Your task to perform on an android device: uninstall "ZOOM Cloud Meetings" Image 0: 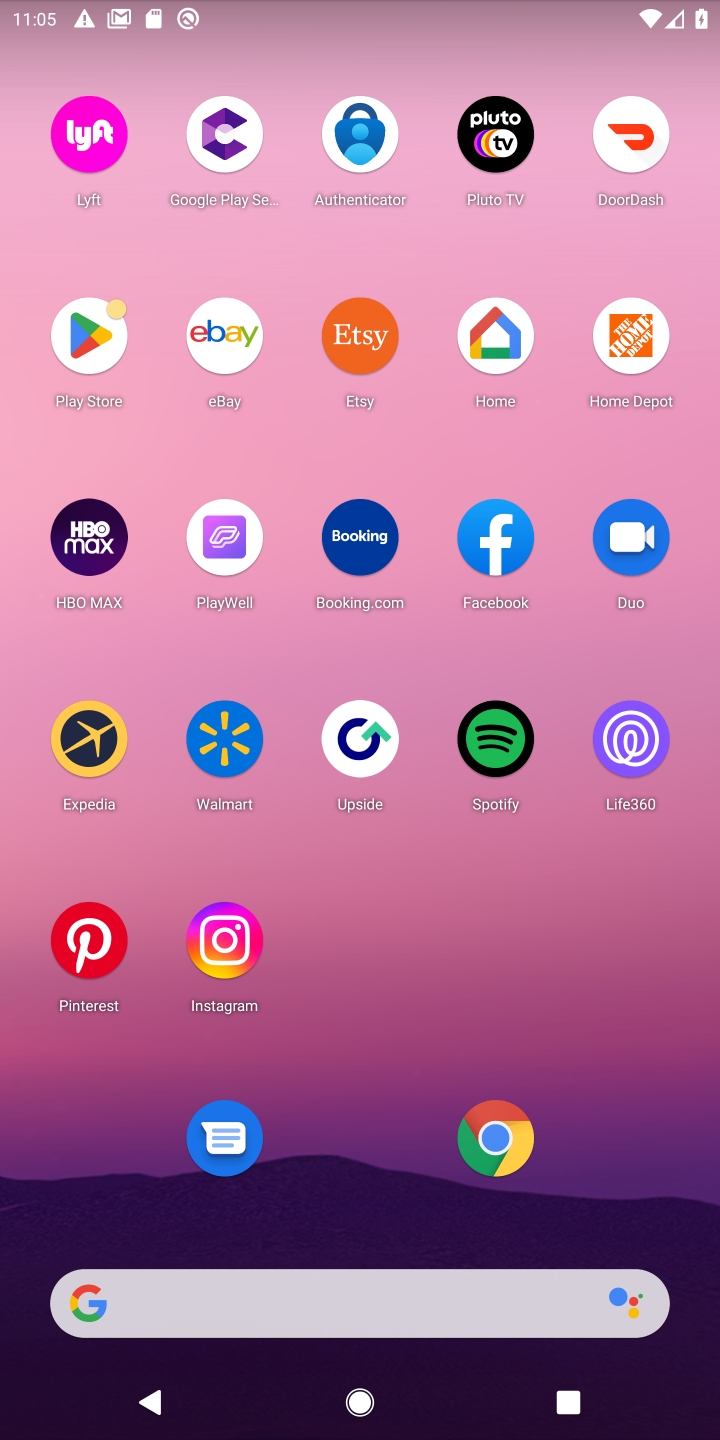
Step 0: click (96, 350)
Your task to perform on an android device: uninstall "ZOOM Cloud Meetings" Image 1: 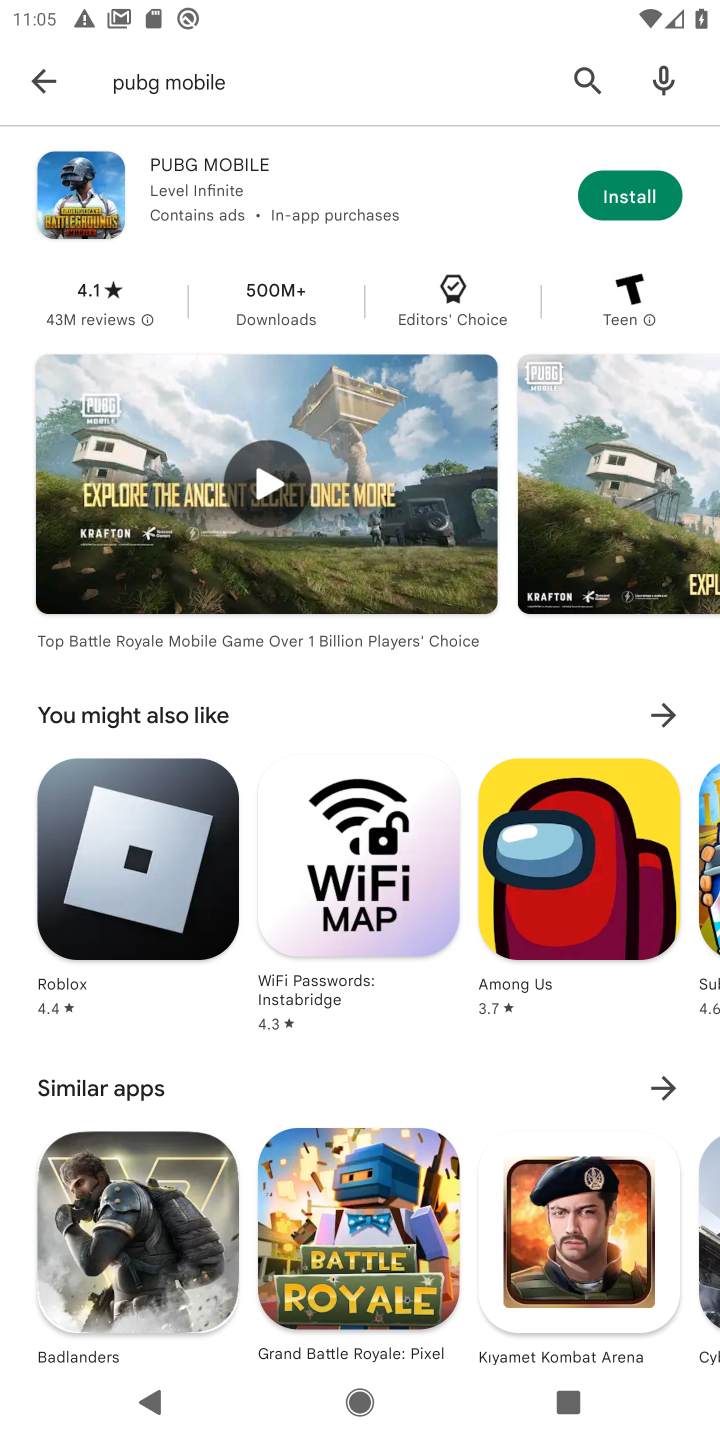
Step 1: click (580, 76)
Your task to perform on an android device: uninstall "ZOOM Cloud Meetings" Image 2: 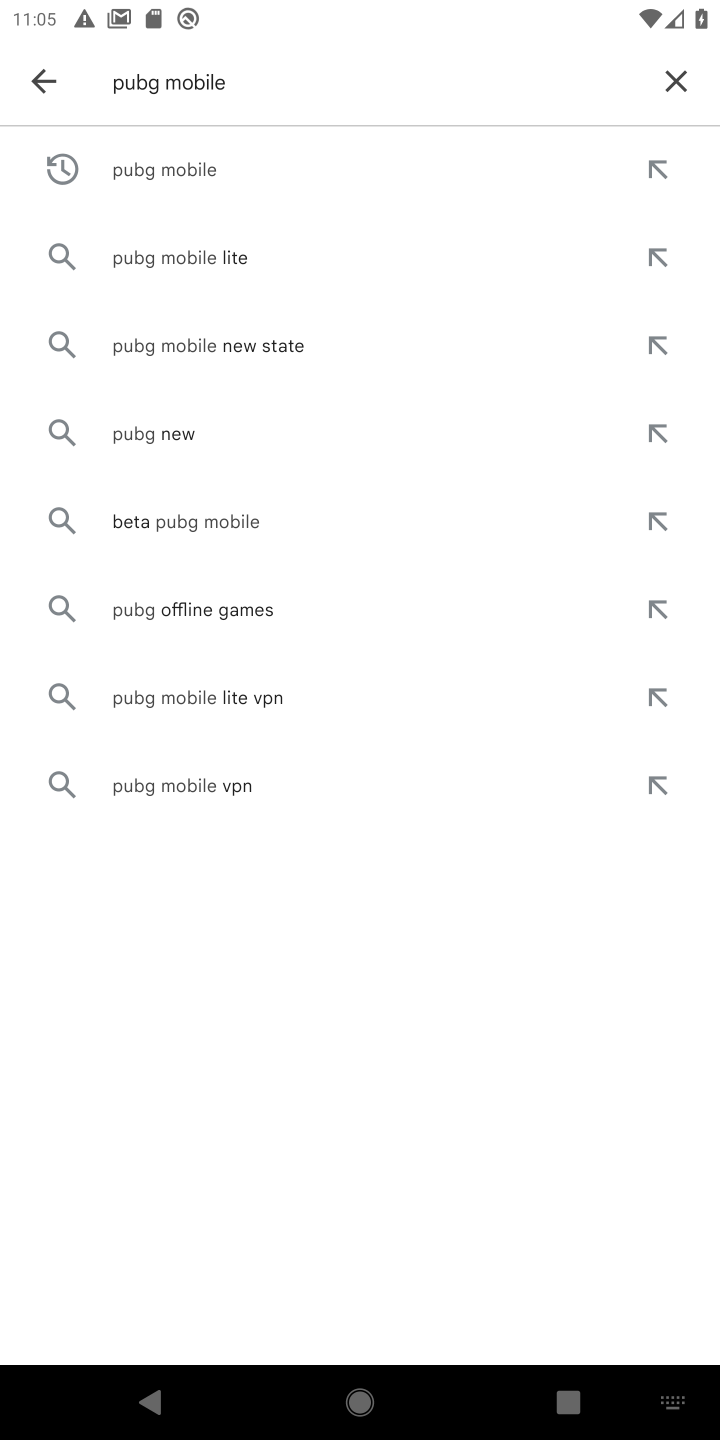
Step 2: click (676, 70)
Your task to perform on an android device: uninstall "ZOOM Cloud Meetings" Image 3: 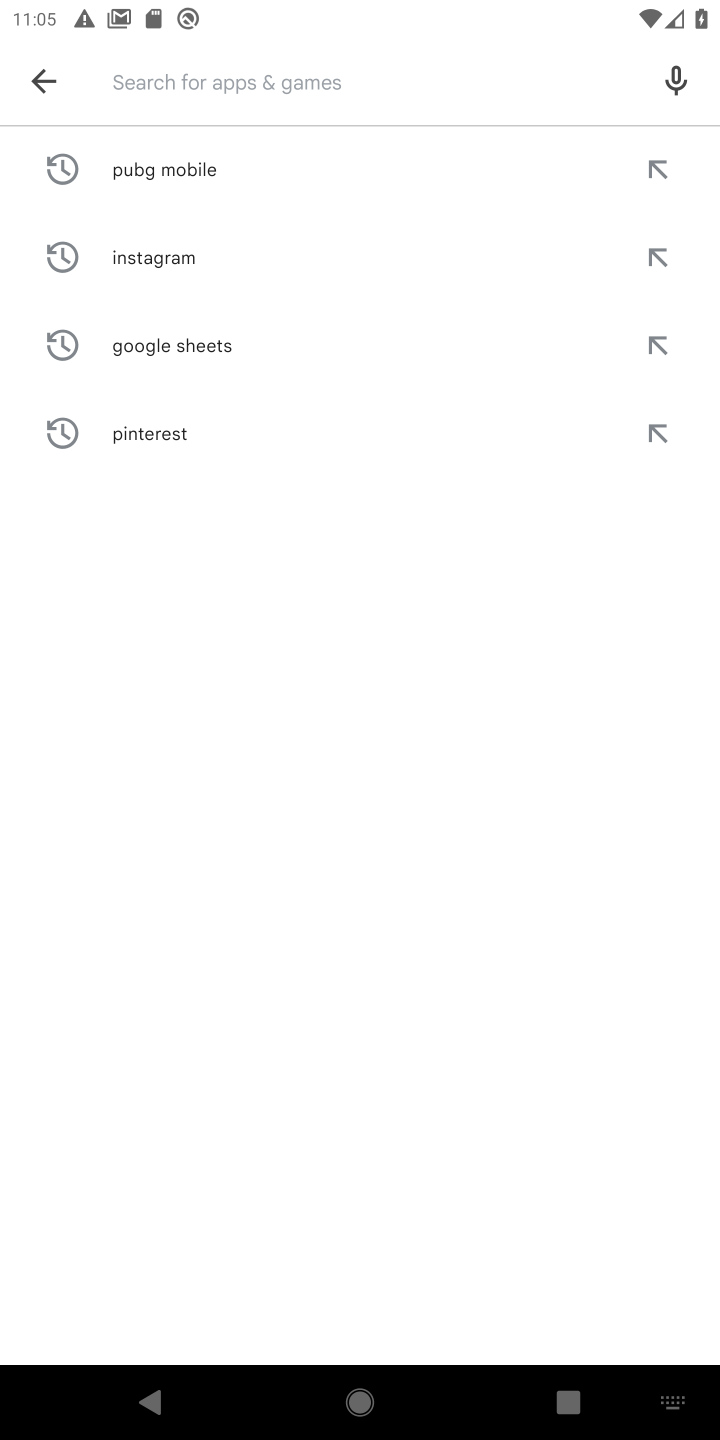
Step 3: type "zoom"
Your task to perform on an android device: uninstall "ZOOM Cloud Meetings" Image 4: 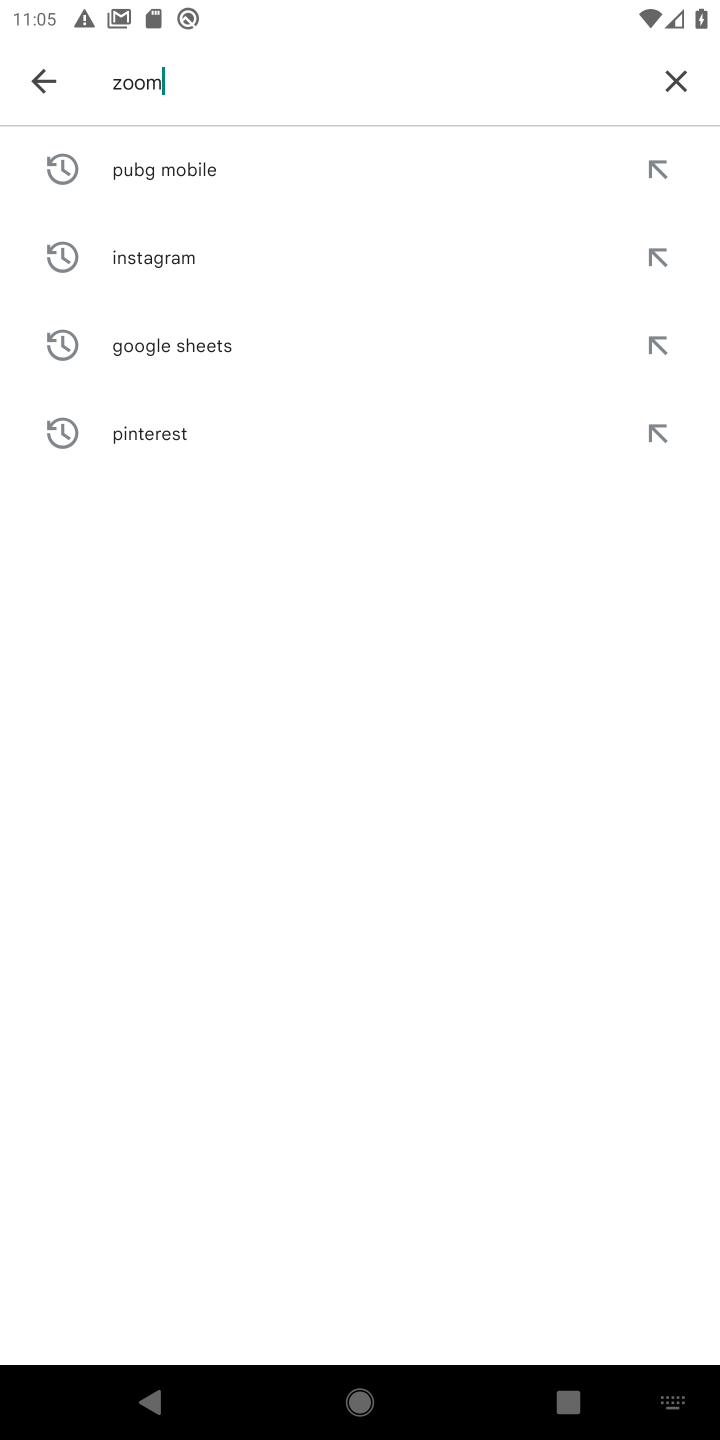
Step 4: type ""
Your task to perform on an android device: uninstall "ZOOM Cloud Meetings" Image 5: 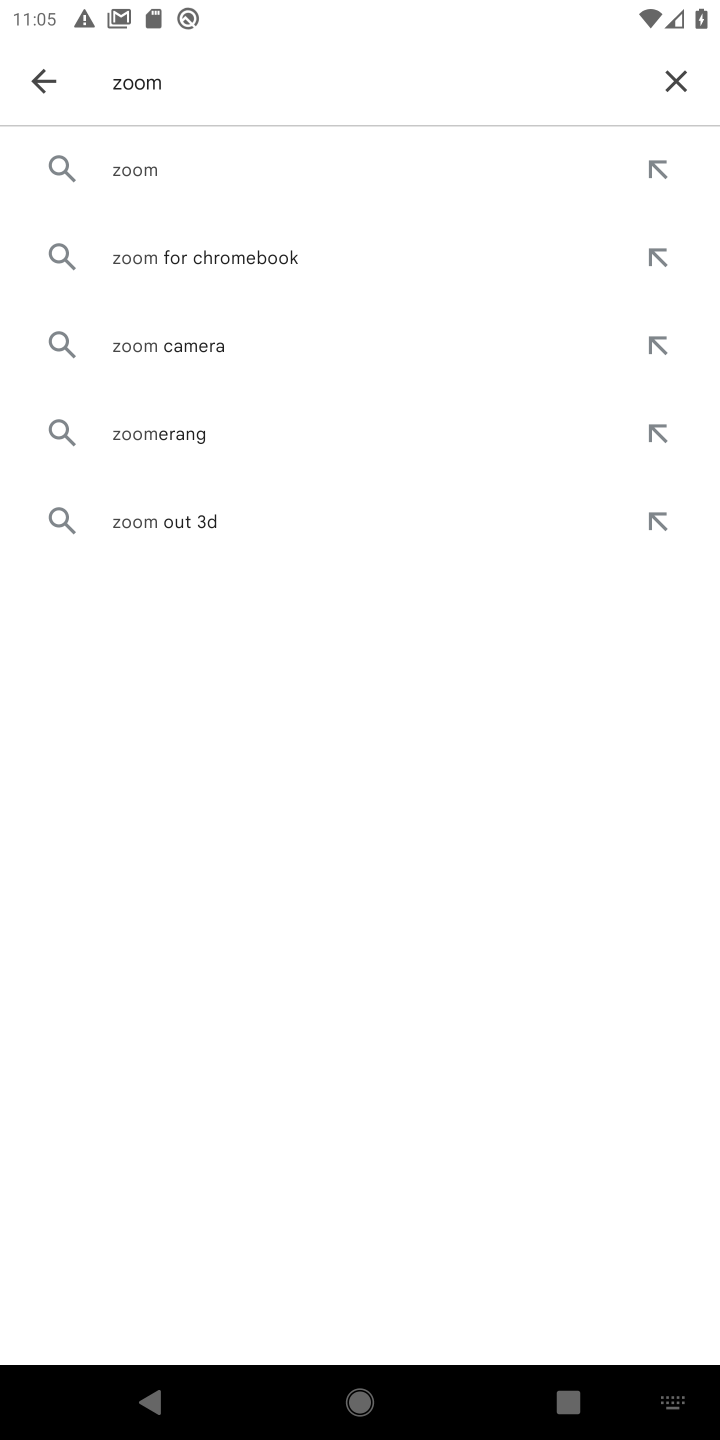
Step 5: click (113, 164)
Your task to perform on an android device: uninstall "ZOOM Cloud Meetings" Image 6: 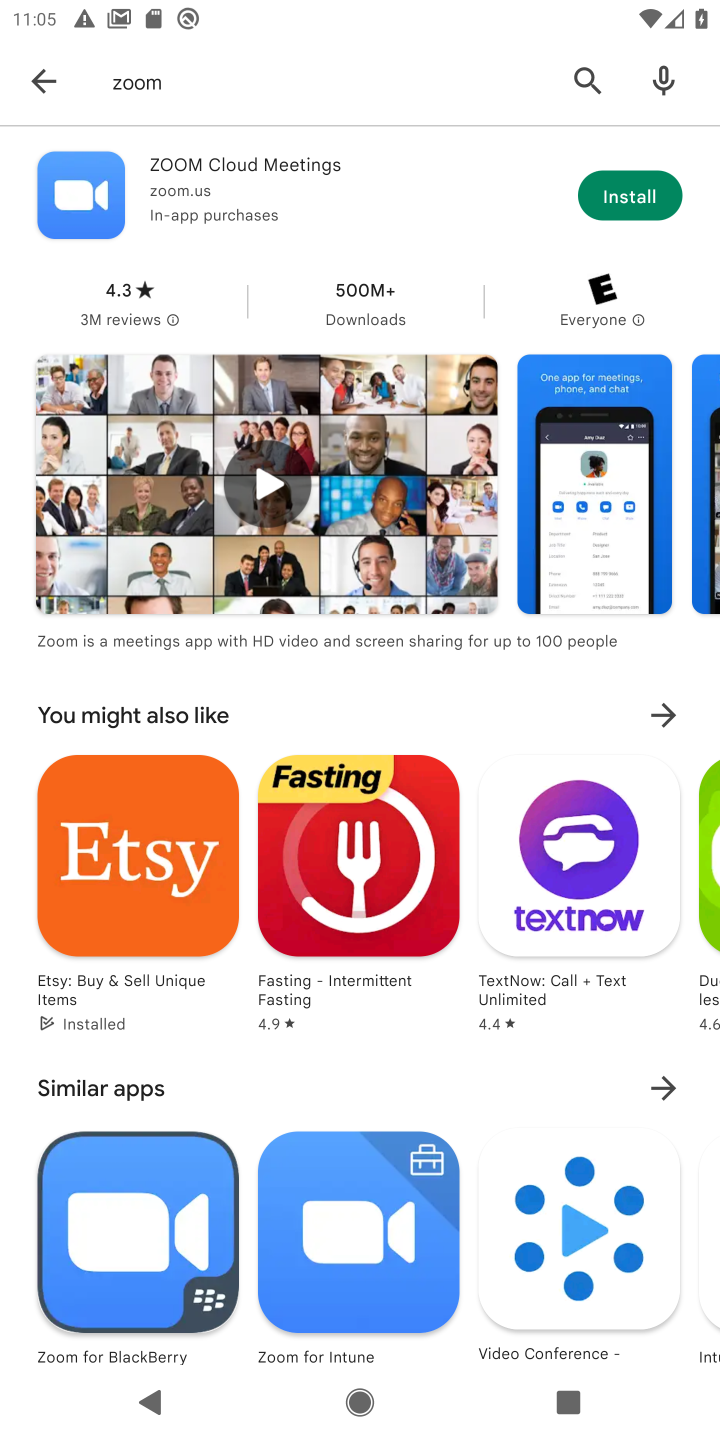
Step 6: click (624, 196)
Your task to perform on an android device: uninstall "ZOOM Cloud Meetings" Image 7: 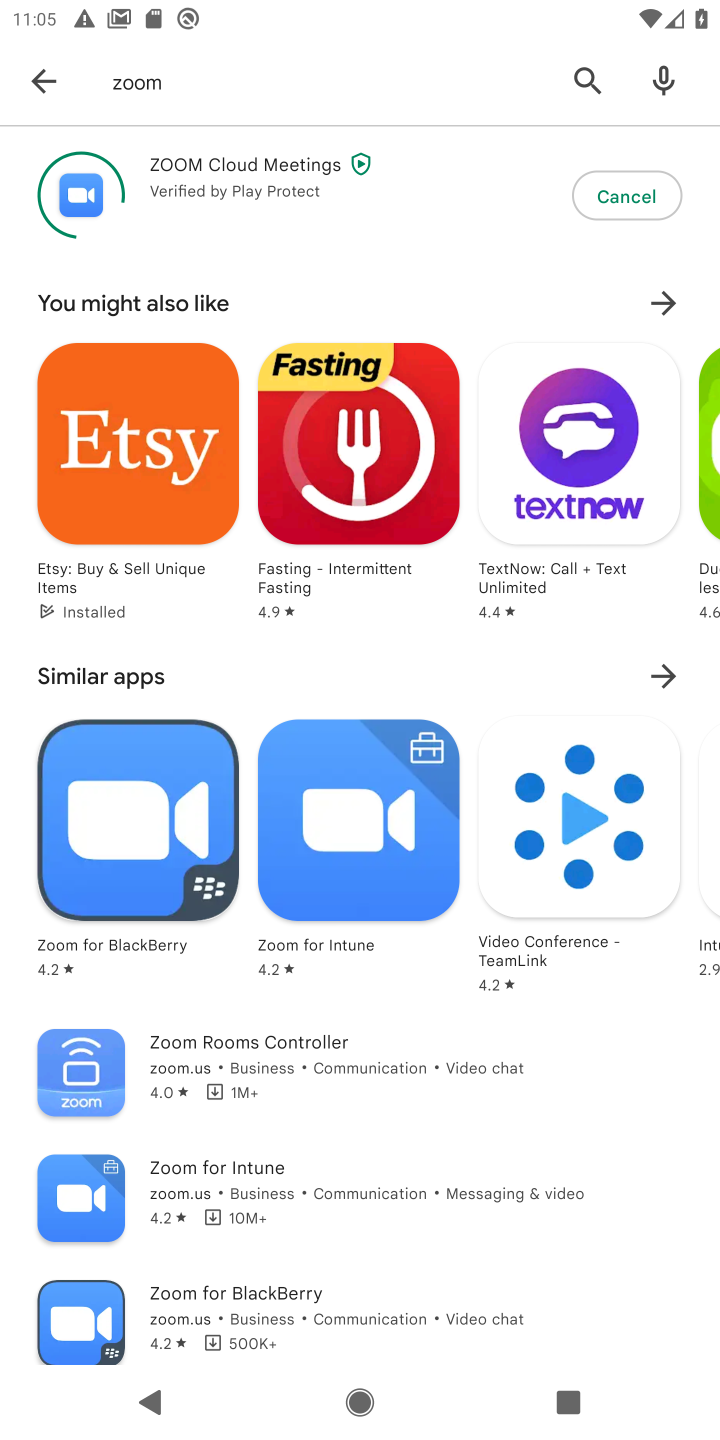
Step 7: click (624, 196)
Your task to perform on an android device: uninstall "ZOOM Cloud Meetings" Image 8: 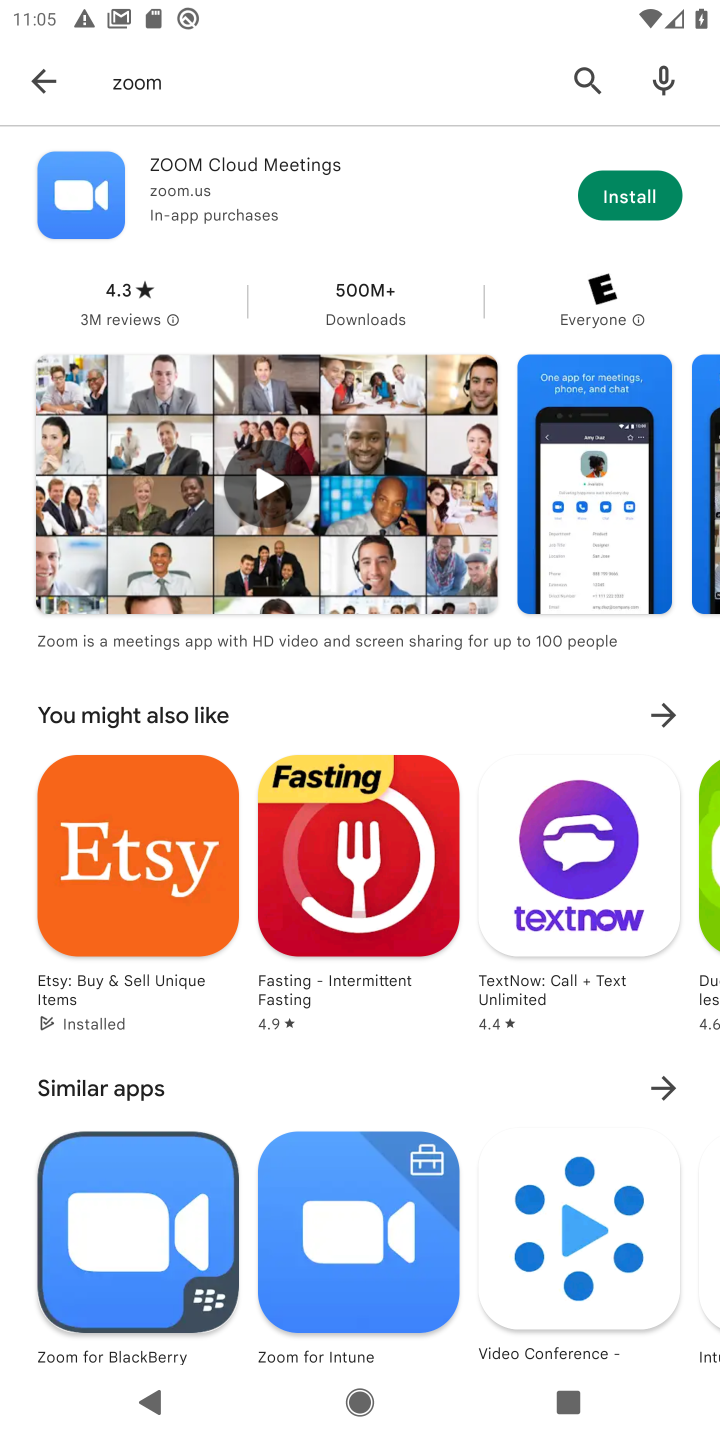
Step 8: task complete